Your task to perform on an android device: toggle javascript in the chrome app Image 0: 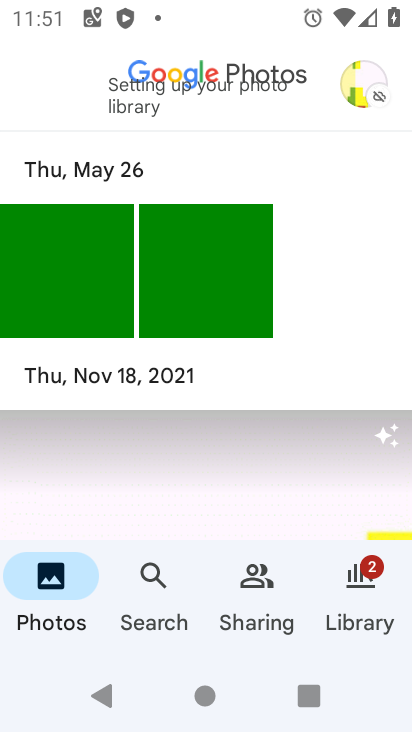
Step 0: press home button
Your task to perform on an android device: toggle javascript in the chrome app Image 1: 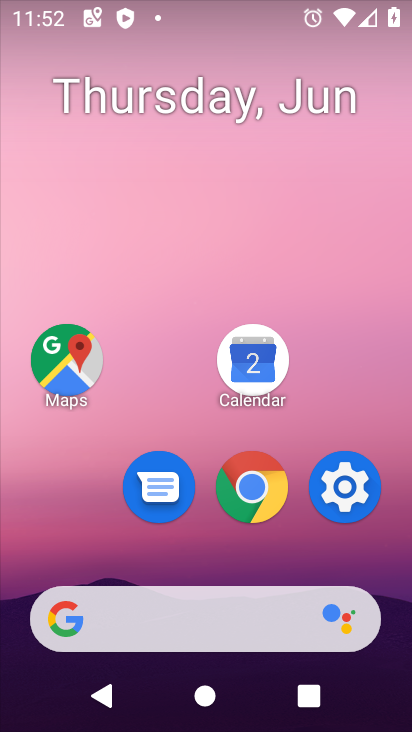
Step 1: drag from (233, 621) to (297, 0)
Your task to perform on an android device: toggle javascript in the chrome app Image 2: 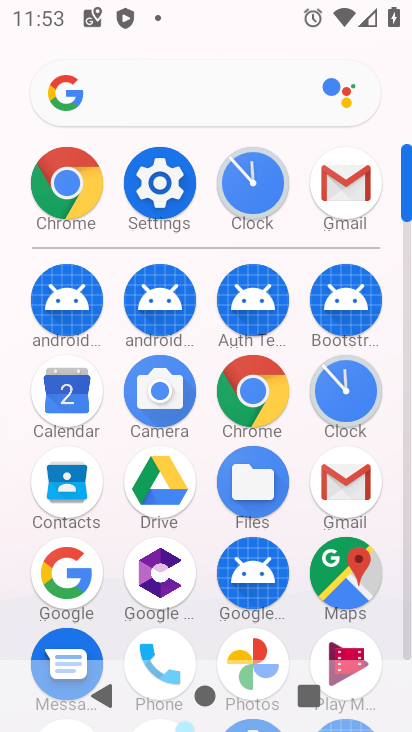
Step 2: click (86, 187)
Your task to perform on an android device: toggle javascript in the chrome app Image 3: 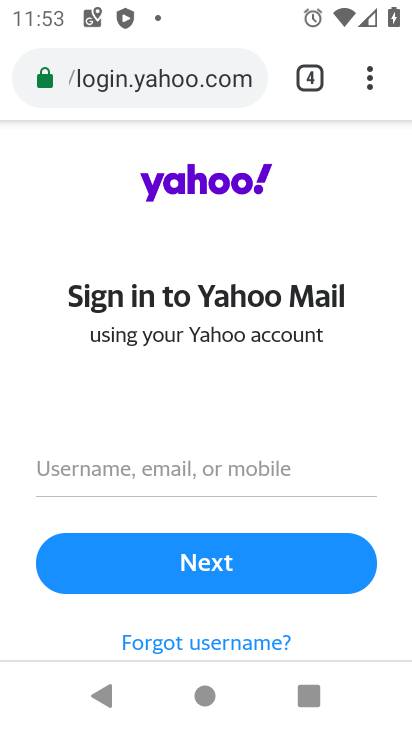
Step 3: click (361, 80)
Your task to perform on an android device: toggle javascript in the chrome app Image 4: 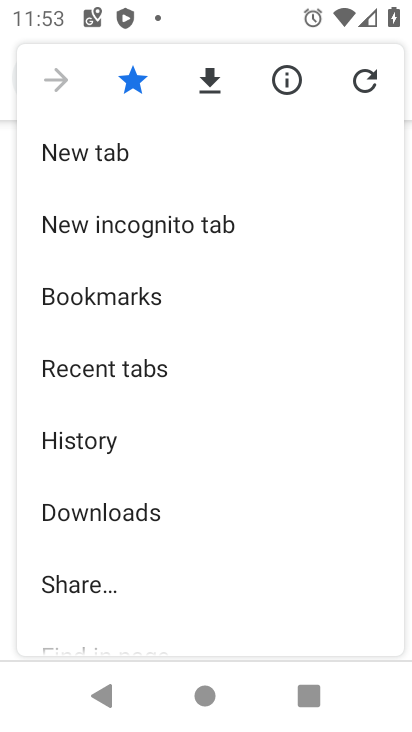
Step 4: click (145, 235)
Your task to perform on an android device: toggle javascript in the chrome app Image 5: 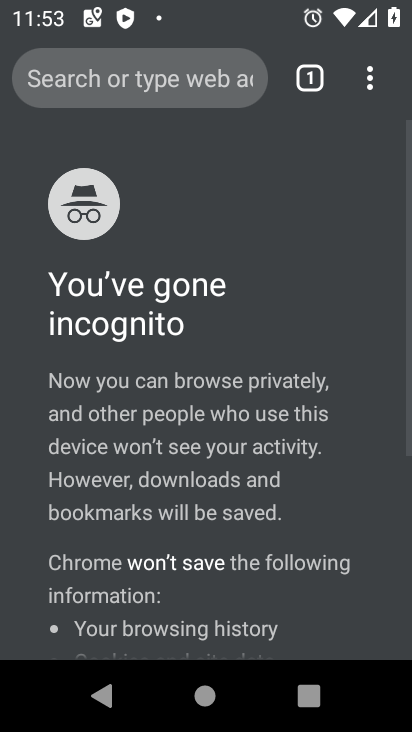
Step 5: drag from (144, 580) to (175, 438)
Your task to perform on an android device: toggle javascript in the chrome app Image 6: 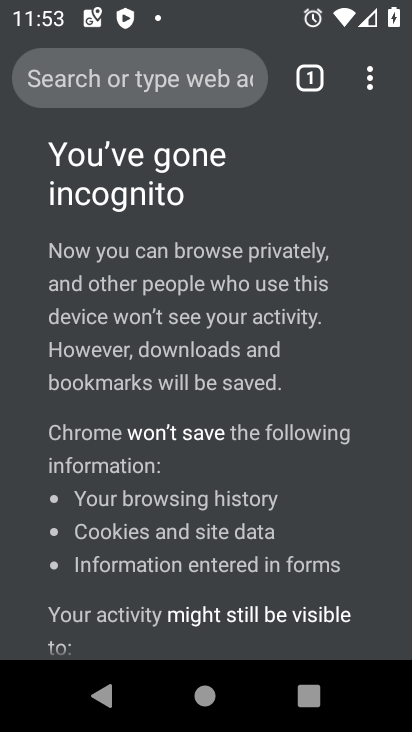
Step 6: click (364, 97)
Your task to perform on an android device: toggle javascript in the chrome app Image 7: 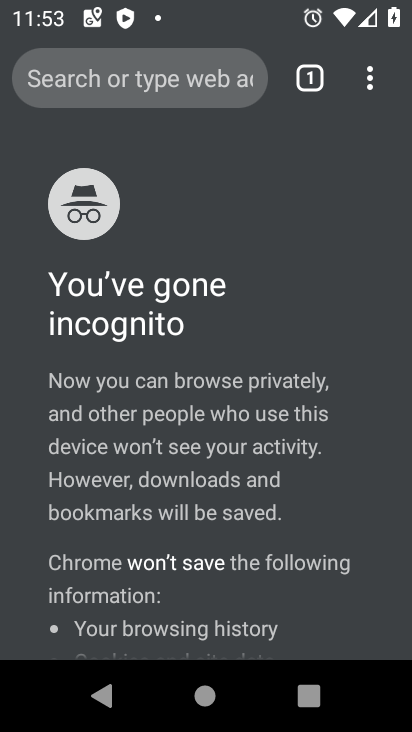
Step 7: click (310, 73)
Your task to perform on an android device: toggle javascript in the chrome app Image 8: 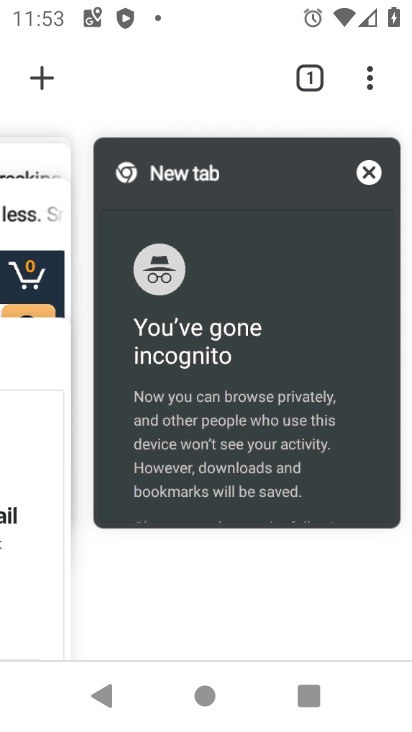
Step 8: click (371, 171)
Your task to perform on an android device: toggle javascript in the chrome app Image 9: 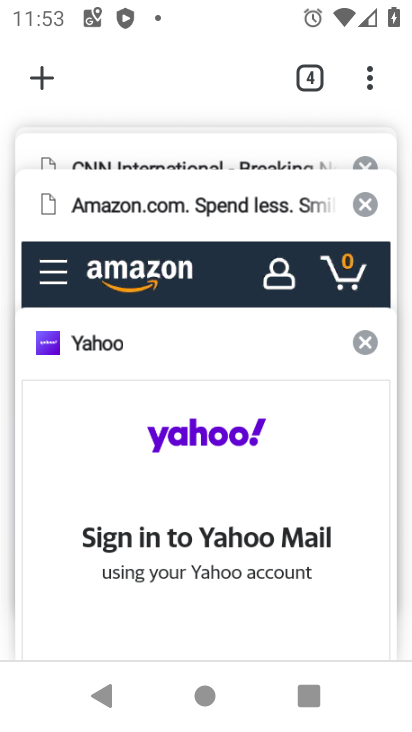
Step 9: click (44, 71)
Your task to perform on an android device: toggle javascript in the chrome app Image 10: 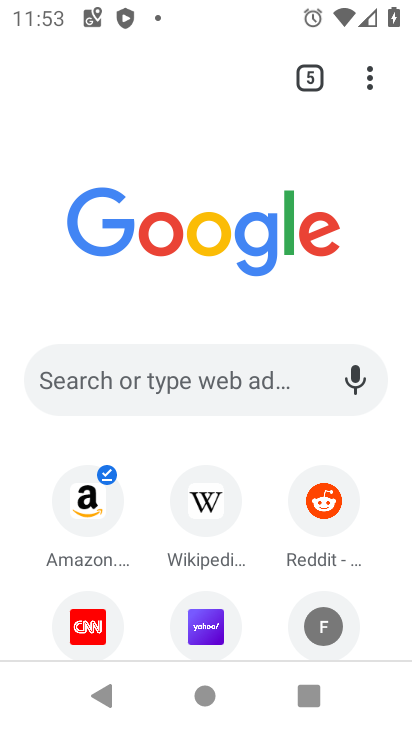
Step 10: click (369, 91)
Your task to perform on an android device: toggle javascript in the chrome app Image 11: 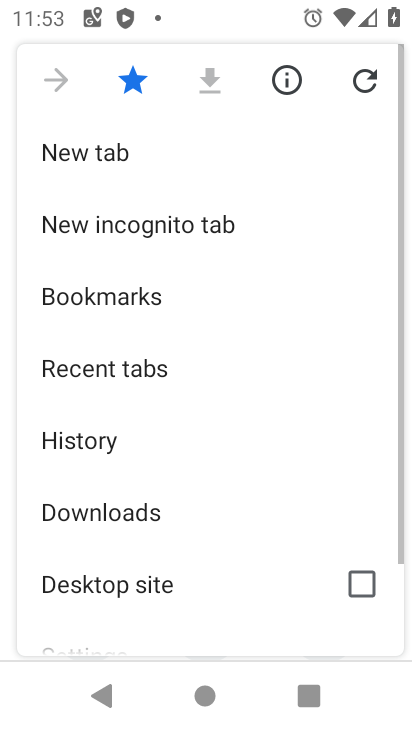
Step 11: drag from (124, 491) to (224, 257)
Your task to perform on an android device: toggle javascript in the chrome app Image 12: 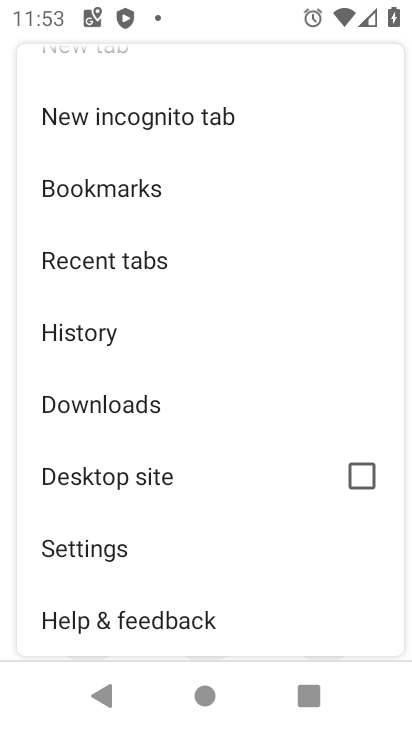
Step 12: click (119, 553)
Your task to perform on an android device: toggle javascript in the chrome app Image 13: 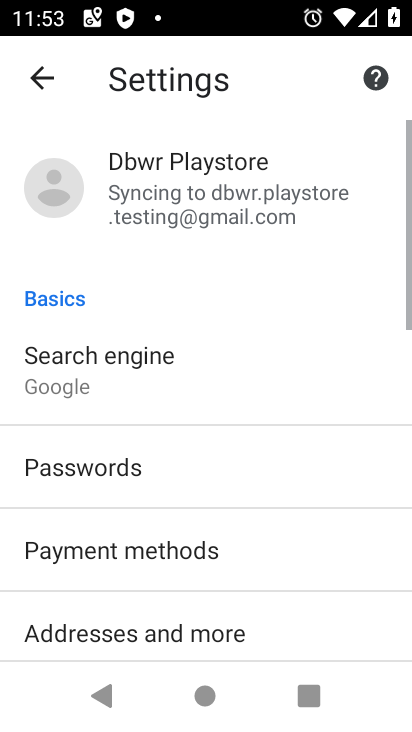
Step 13: drag from (146, 534) to (253, 159)
Your task to perform on an android device: toggle javascript in the chrome app Image 14: 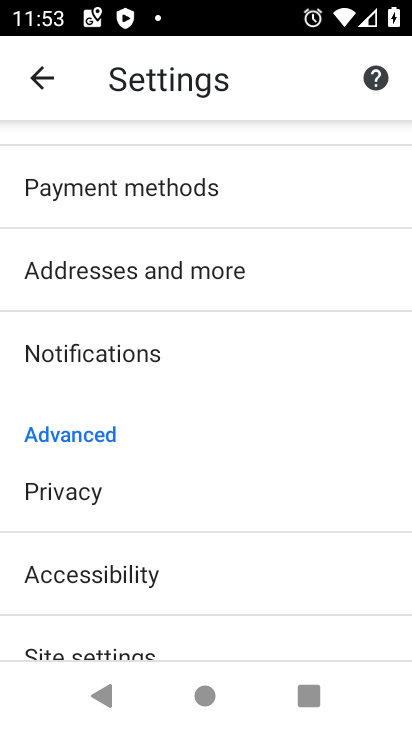
Step 14: drag from (139, 545) to (235, 233)
Your task to perform on an android device: toggle javascript in the chrome app Image 15: 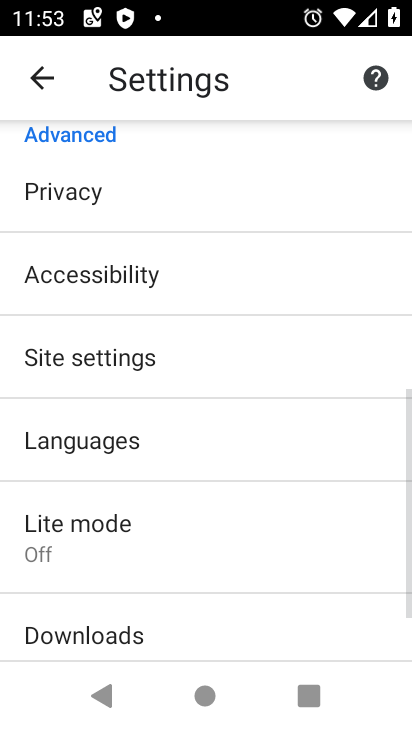
Step 15: click (93, 355)
Your task to perform on an android device: toggle javascript in the chrome app Image 16: 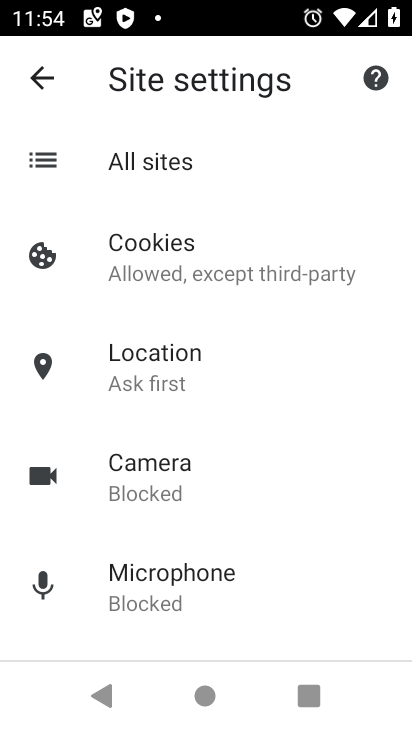
Step 16: drag from (155, 544) to (291, 139)
Your task to perform on an android device: toggle javascript in the chrome app Image 17: 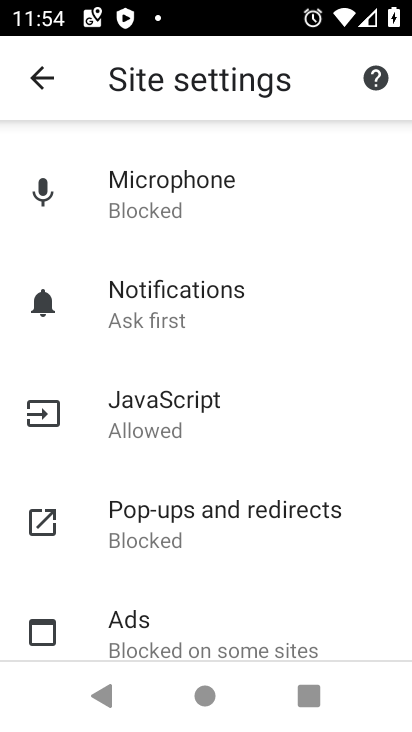
Step 17: drag from (151, 601) to (205, 447)
Your task to perform on an android device: toggle javascript in the chrome app Image 18: 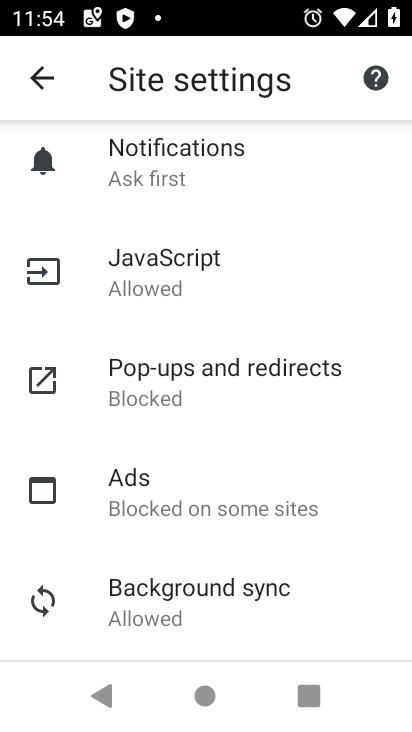
Step 18: click (165, 280)
Your task to perform on an android device: toggle javascript in the chrome app Image 19: 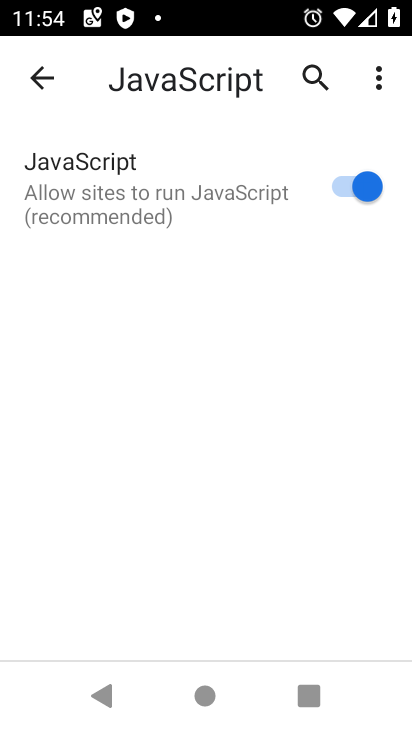
Step 19: task complete